Your task to perform on an android device: What's the weather going to be this weekend? Image 0: 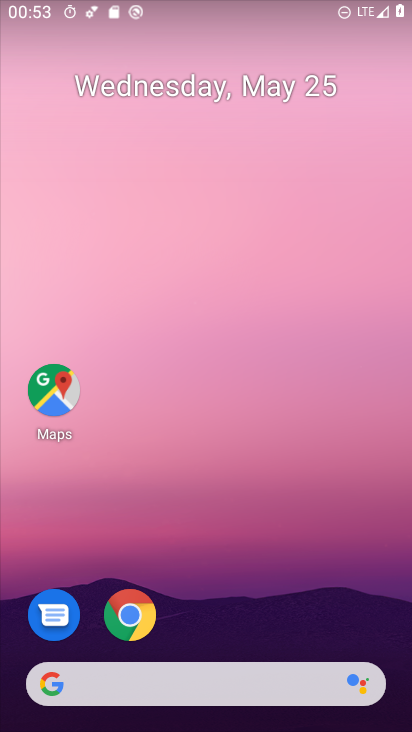
Step 0: press home button
Your task to perform on an android device: What's the weather going to be this weekend? Image 1: 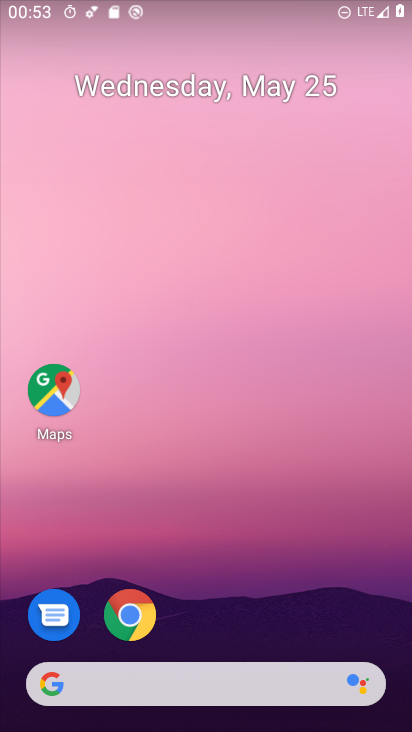
Step 1: drag from (276, 699) to (382, 88)
Your task to perform on an android device: What's the weather going to be this weekend? Image 2: 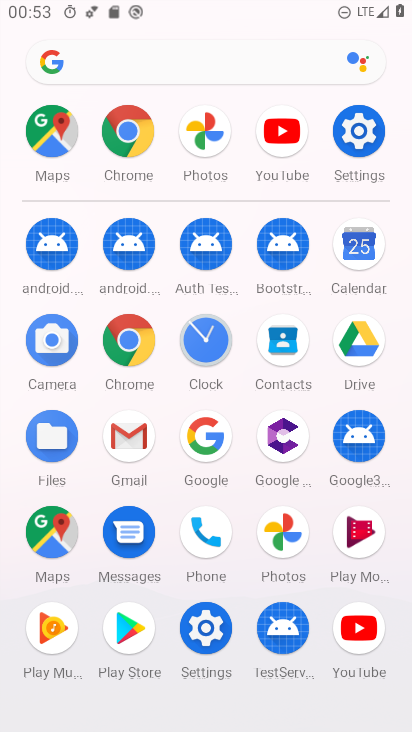
Step 2: click (84, 61)
Your task to perform on an android device: What's the weather going to be this weekend? Image 3: 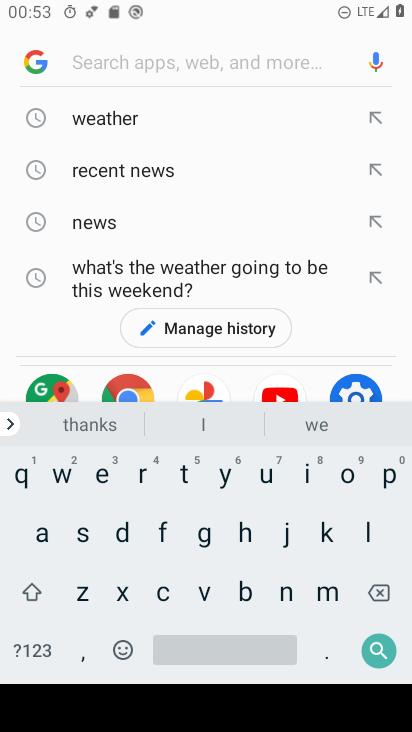
Step 3: click (90, 119)
Your task to perform on an android device: What's the weather going to be this weekend? Image 4: 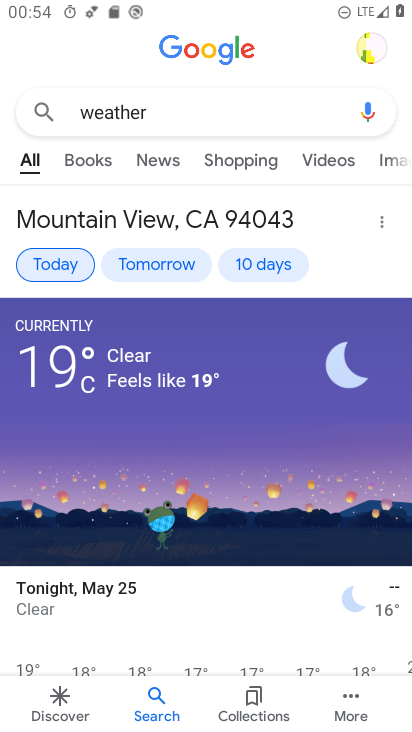
Step 4: click (254, 260)
Your task to perform on an android device: What's the weather going to be this weekend? Image 5: 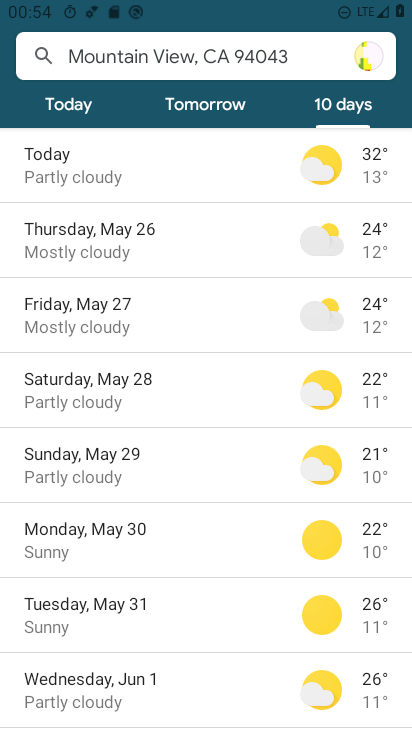
Step 5: task complete